Your task to perform on an android device: allow cookies in the chrome app Image 0: 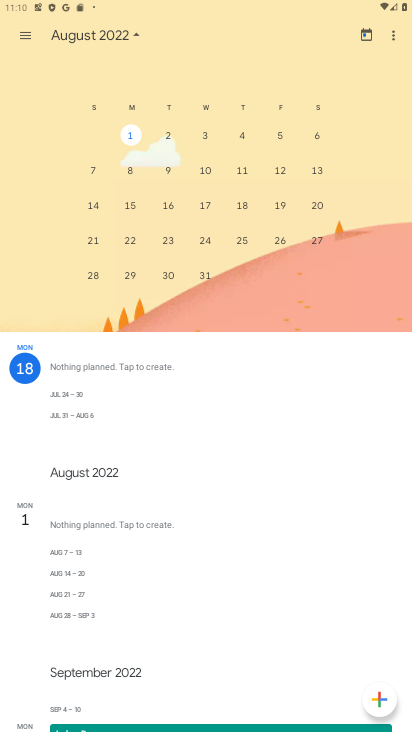
Step 0: press home button
Your task to perform on an android device: allow cookies in the chrome app Image 1: 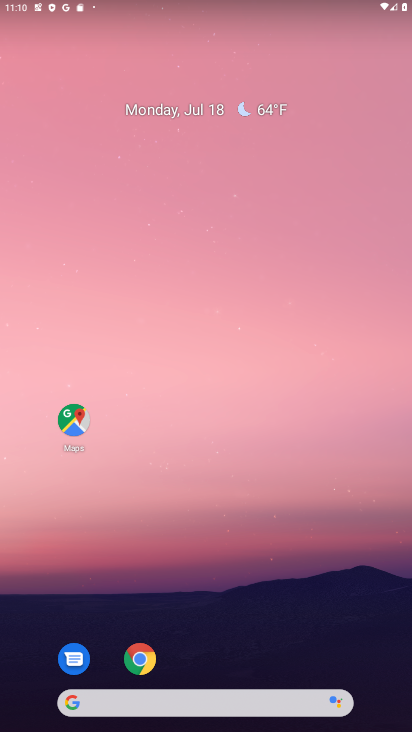
Step 1: drag from (335, 673) to (299, 103)
Your task to perform on an android device: allow cookies in the chrome app Image 2: 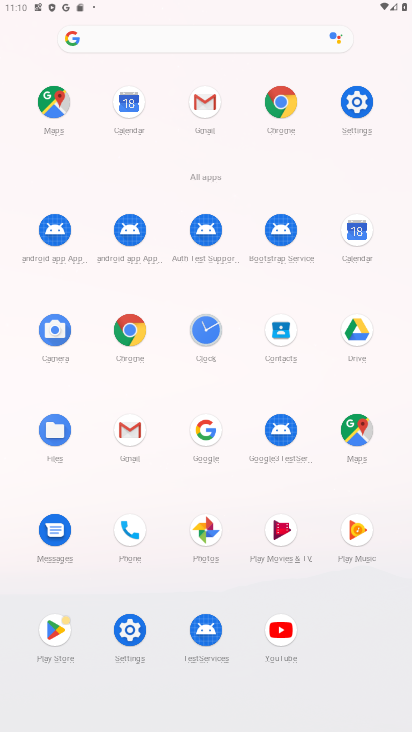
Step 2: click (137, 328)
Your task to perform on an android device: allow cookies in the chrome app Image 3: 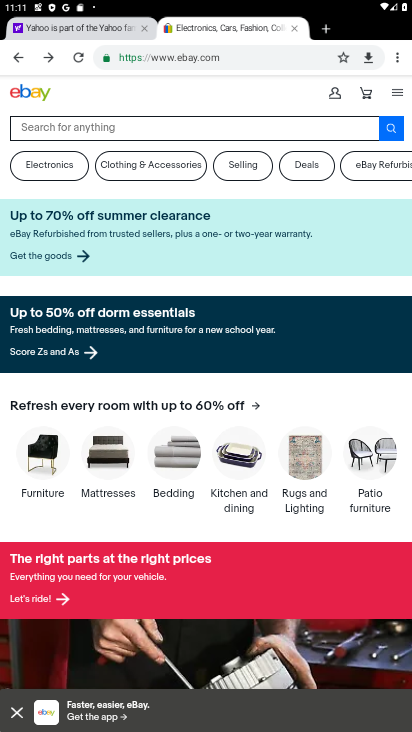
Step 3: drag from (399, 60) to (265, 405)
Your task to perform on an android device: allow cookies in the chrome app Image 4: 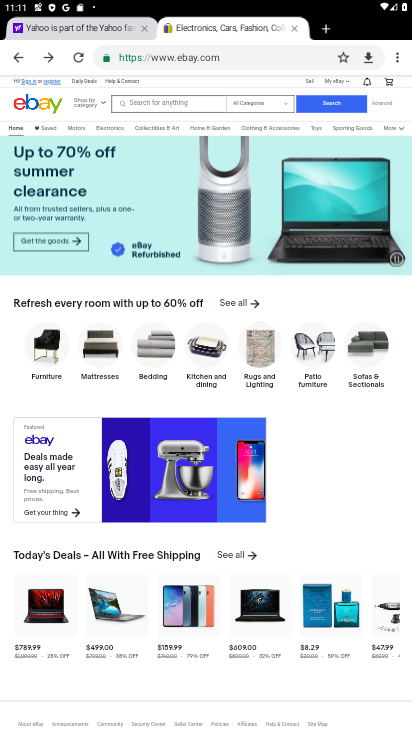
Step 4: drag from (394, 58) to (283, 392)
Your task to perform on an android device: allow cookies in the chrome app Image 5: 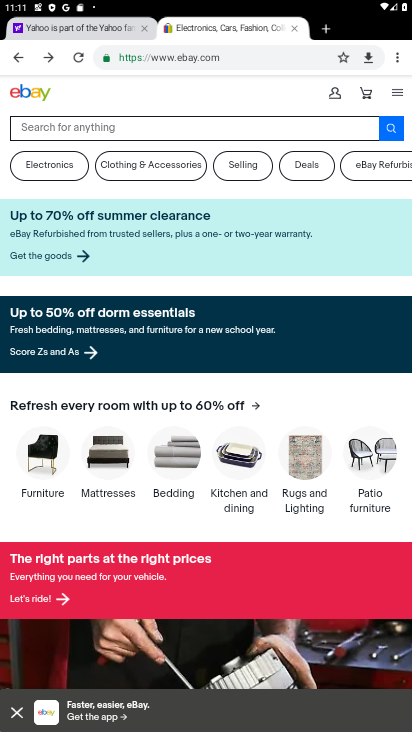
Step 5: drag from (400, 58) to (296, 417)
Your task to perform on an android device: allow cookies in the chrome app Image 6: 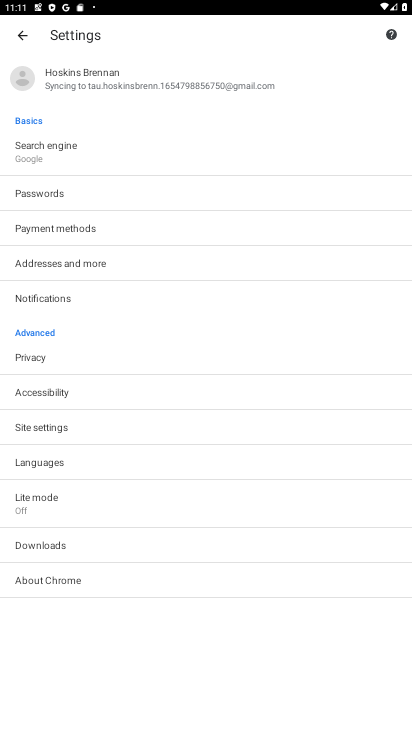
Step 6: click (31, 420)
Your task to perform on an android device: allow cookies in the chrome app Image 7: 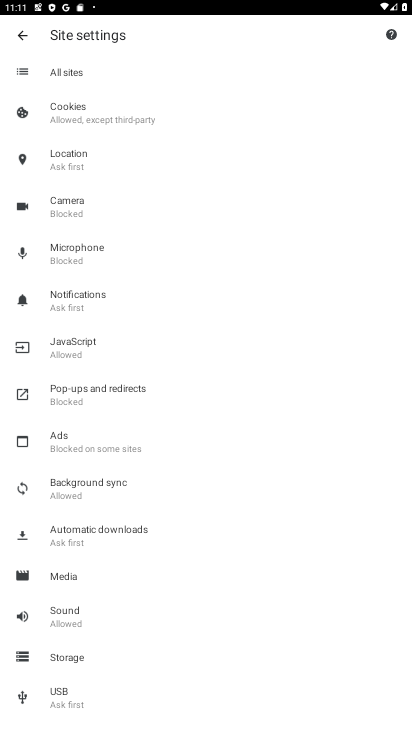
Step 7: click (101, 125)
Your task to perform on an android device: allow cookies in the chrome app Image 8: 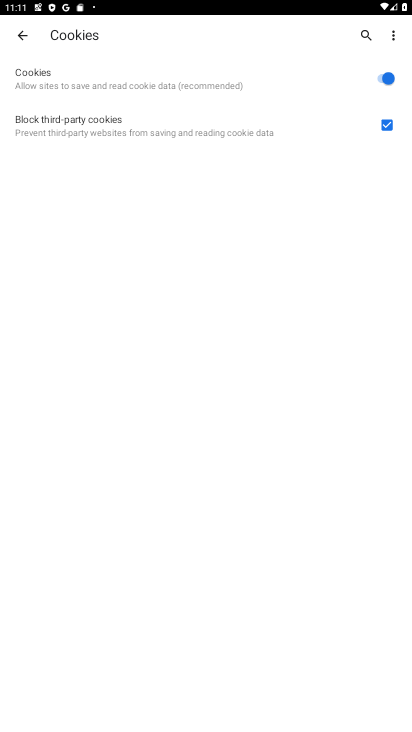
Step 8: task complete